Your task to perform on an android device: turn on wifi Image 0: 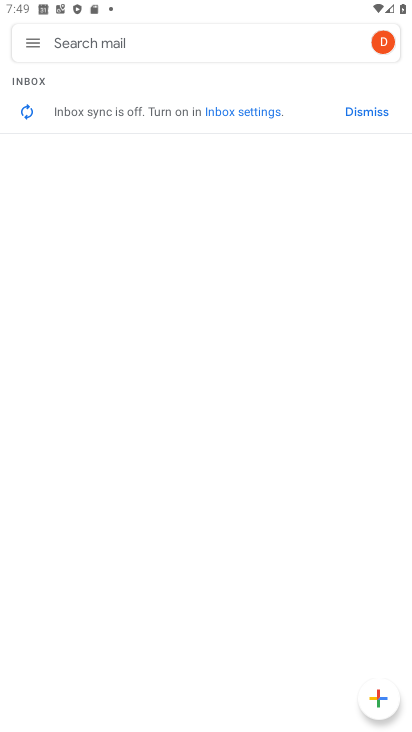
Step 0: press home button
Your task to perform on an android device: turn on wifi Image 1: 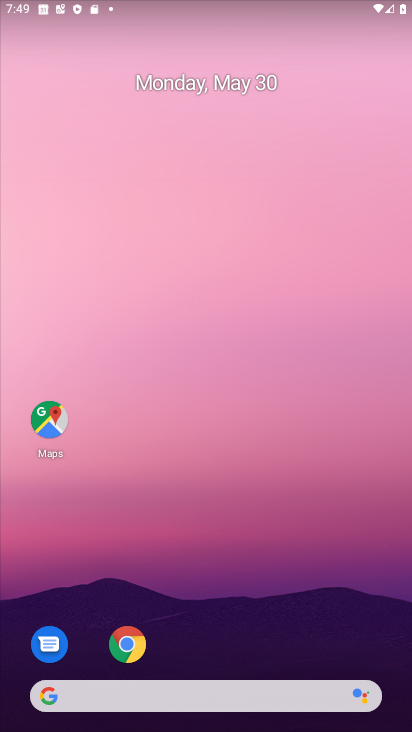
Step 1: drag from (280, 643) to (182, 180)
Your task to perform on an android device: turn on wifi Image 2: 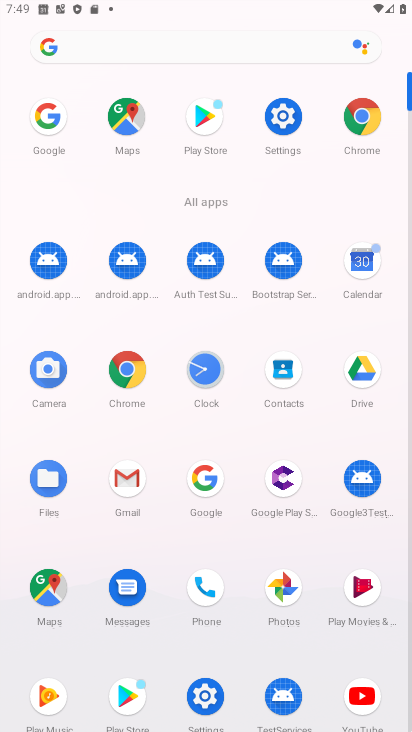
Step 2: click (204, 697)
Your task to perform on an android device: turn on wifi Image 3: 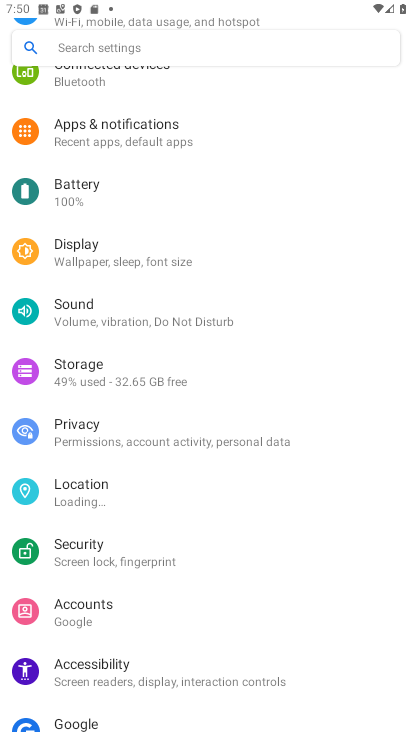
Step 3: drag from (165, 338) to (157, 410)
Your task to perform on an android device: turn on wifi Image 4: 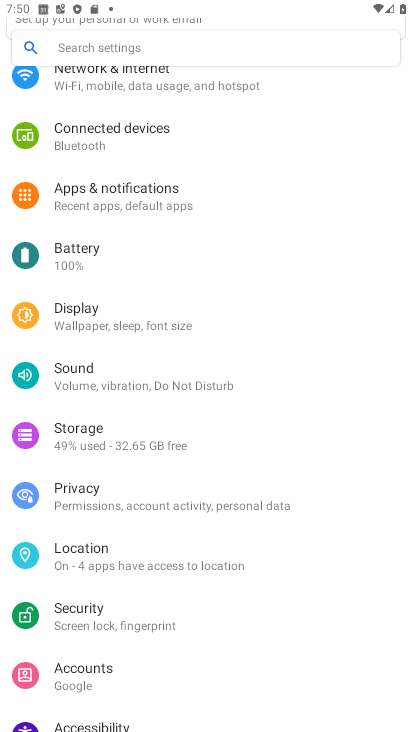
Step 4: drag from (130, 290) to (154, 403)
Your task to perform on an android device: turn on wifi Image 5: 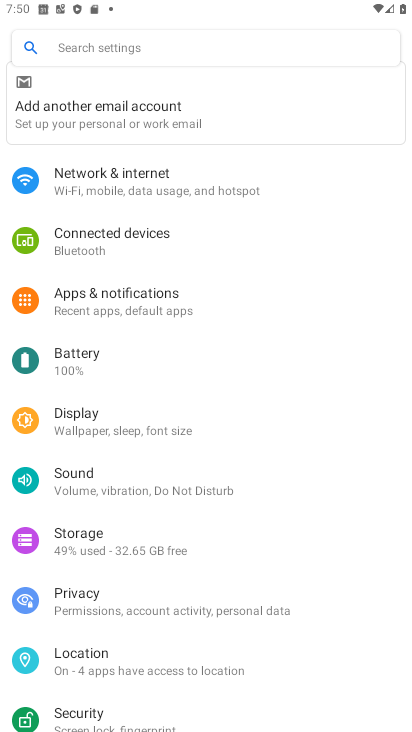
Step 5: click (177, 186)
Your task to perform on an android device: turn on wifi Image 6: 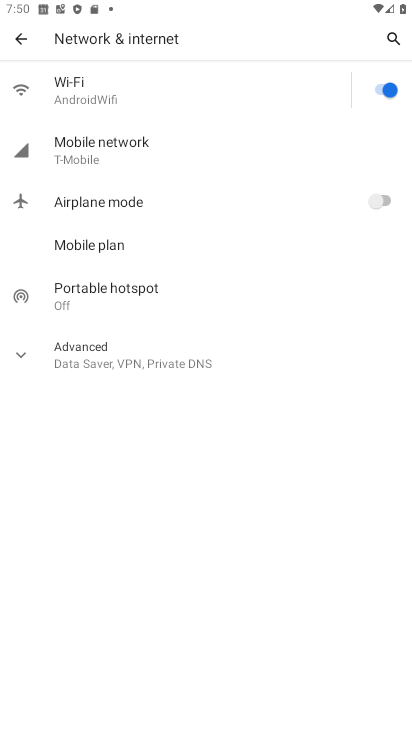
Step 6: click (381, 89)
Your task to perform on an android device: turn on wifi Image 7: 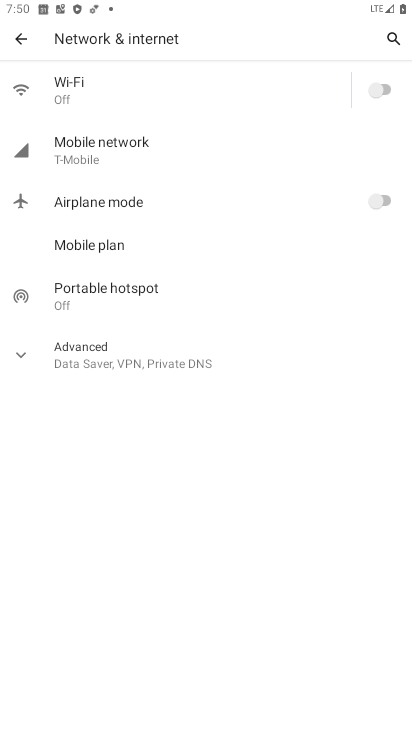
Step 7: task complete